Your task to perform on an android device: turn off smart reply in the gmail app Image 0: 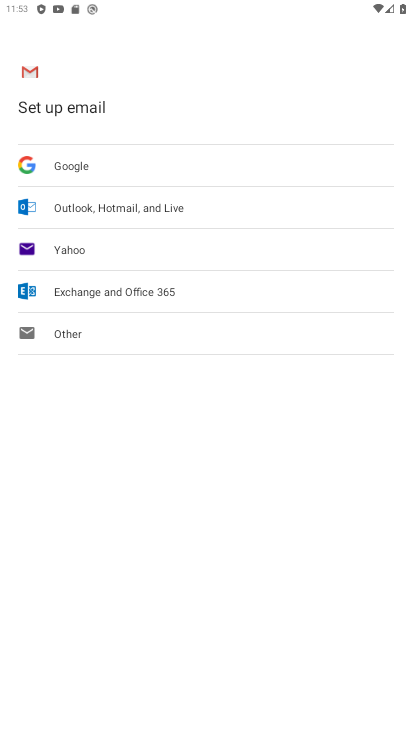
Step 0: press home button
Your task to perform on an android device: turn off smart reply in the gmail app Image 1: 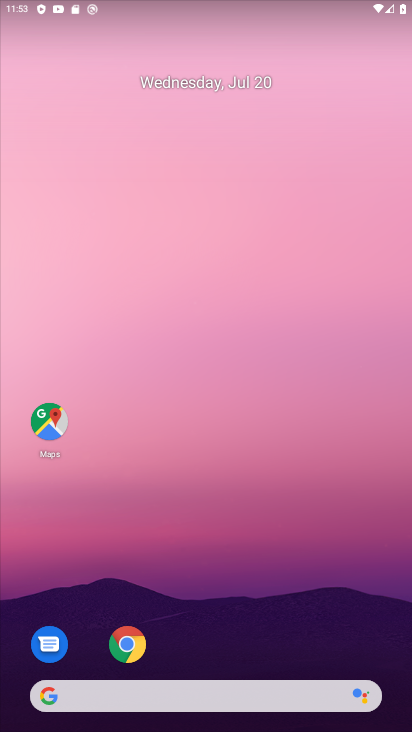
Step 1: drag from (383, 647) to (286, 89)
Your task to perform on an android device: turn off smart reply in the gmail app Image 2: 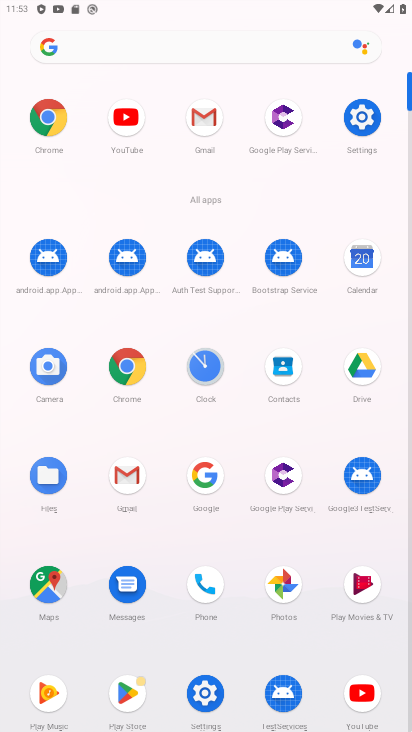
Step 2: click (127, 474)
Your task to perform on an android device: turn off smart reply in the gmail app Image 3: 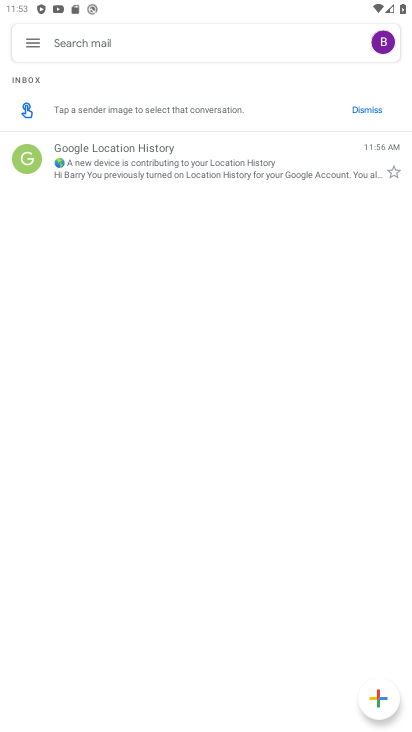
Step 3: click (33, 40)
Your task to perform on an android device: turn off smart reply in the gmail app Image 4: 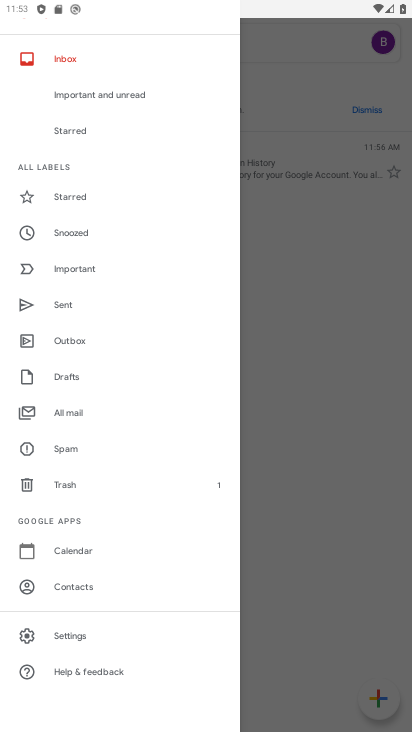
Step 4: click (68, 631)
Your task to perform on an android device: turn off smart reply in the gmail app Image 5: 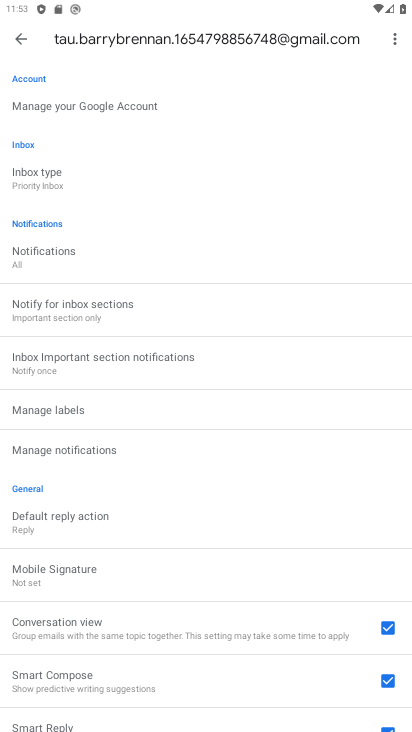
Step 5: drag from (231, 598) to (210, 242)
Your task to perform on an android device: turn off smart reply in the gmail app Image 6: 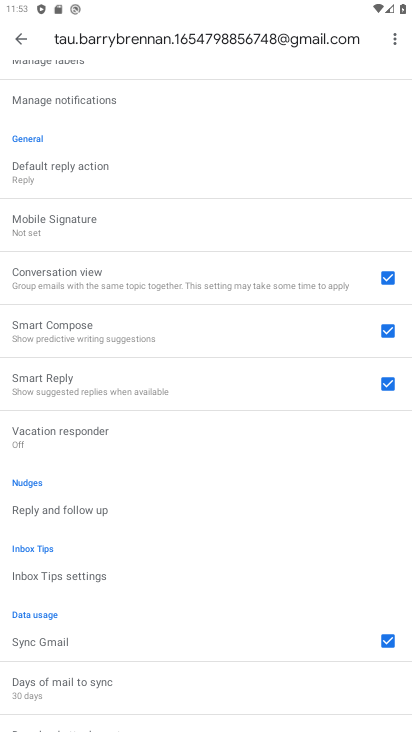
Step 6: click (386, 383)
Your task to perform on an android device: turn off smart reply in the gmail app Image 7: 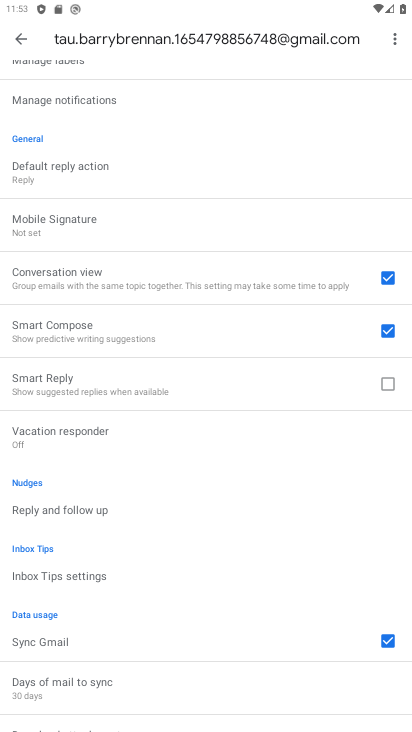
Step 7: task complete